Your task to perform on an android device: Open accessibility settings Image 0: 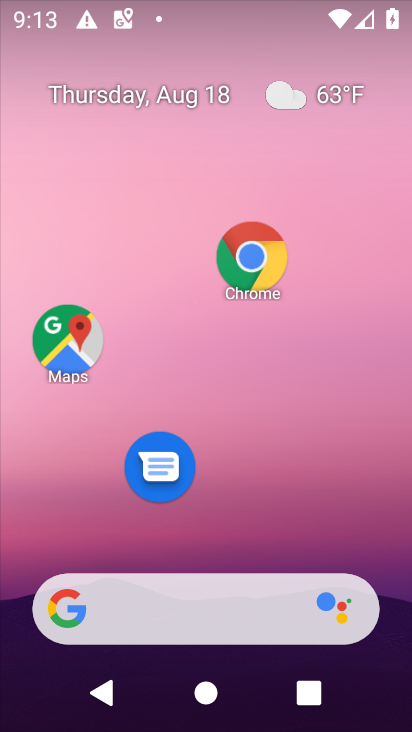
Step 0: drag from (312, 536) to (309, 151)
Your task to perform on an android device: Open accessibility settings Image 1: 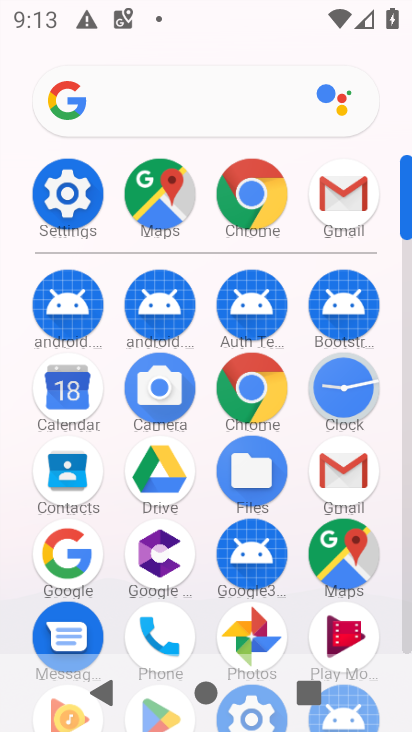
Step 1: click (66, 196)
Your task to perform on an android device: Open accessibility settings Image 2: 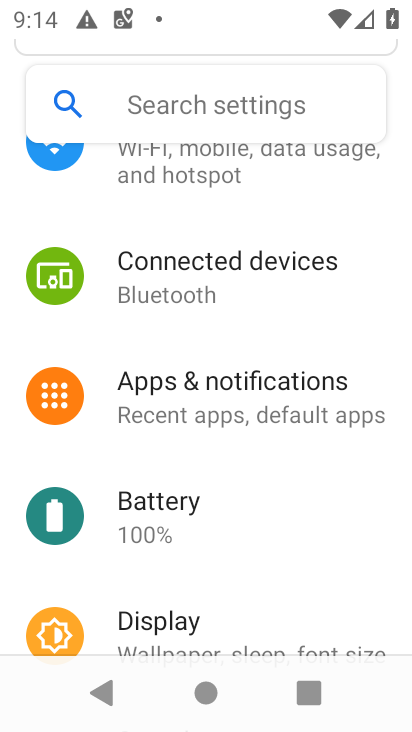
Step 2: task complete